Your task to perform on an android device: Go to Google maps Image 0: 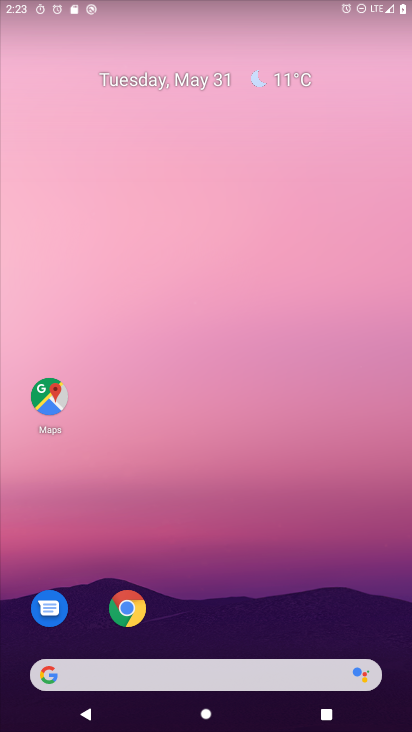
Step 0: click (47, 399)
Your task to perform on an android device: Go to Google maps Image 1: 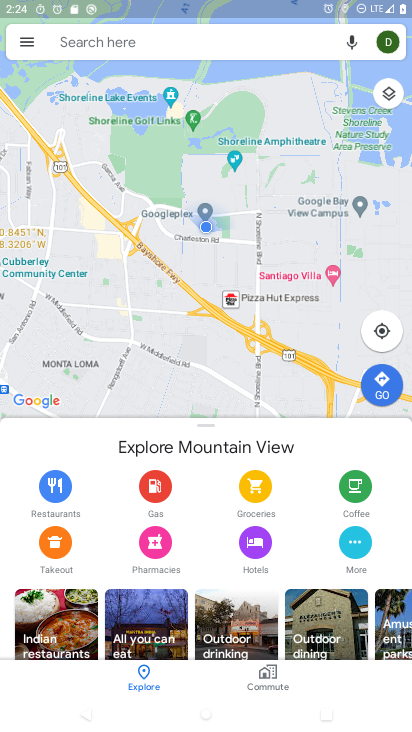
Step 1: task complete